Your task to perform on an android device: turn on wifi Image 0: 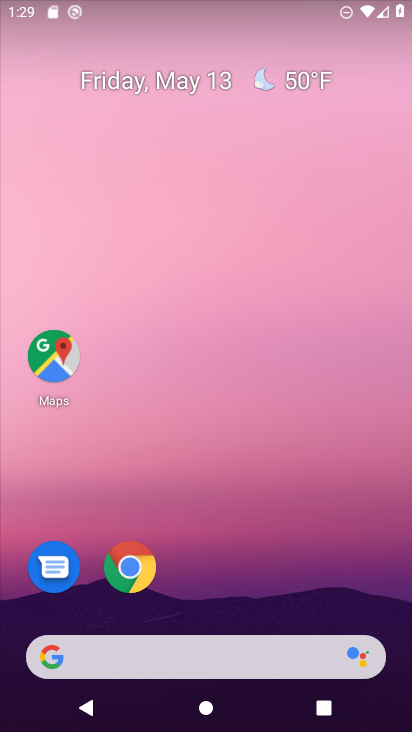
Step 0: drag from (182, 581) to (260, 185)
Your task to perform on an android device: turn on wifi Image 1: 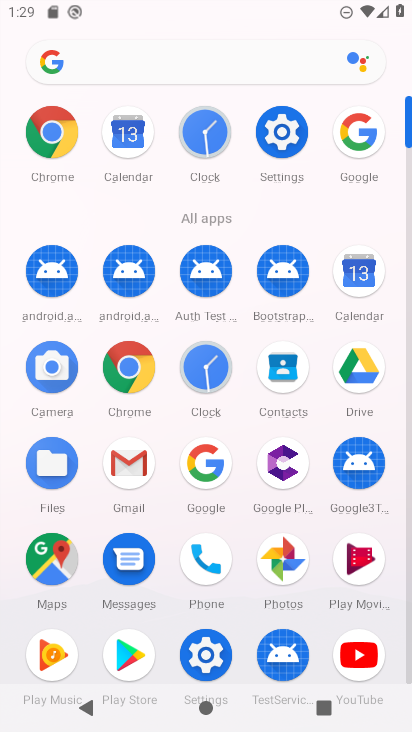
Step 1: click (281, 134)
Your task to perform on an android device: turn on wifi Image 2: 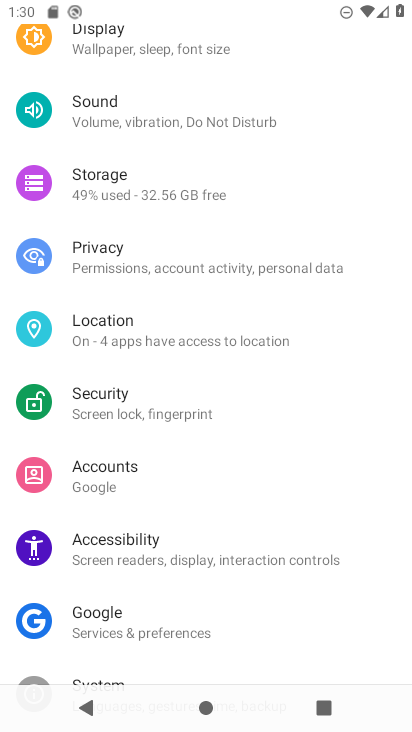
Step 2: drag from (128, 49) to (125, 452)
Your task to perform on an android device: turn on wifi Image 3: 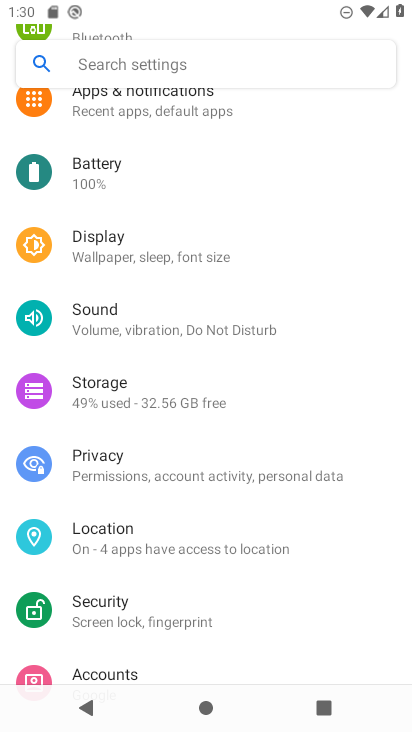
Step 3: drag from (222, 33) to (219, 444)
Your task to perform on an android device: turn on wifi Image 4: 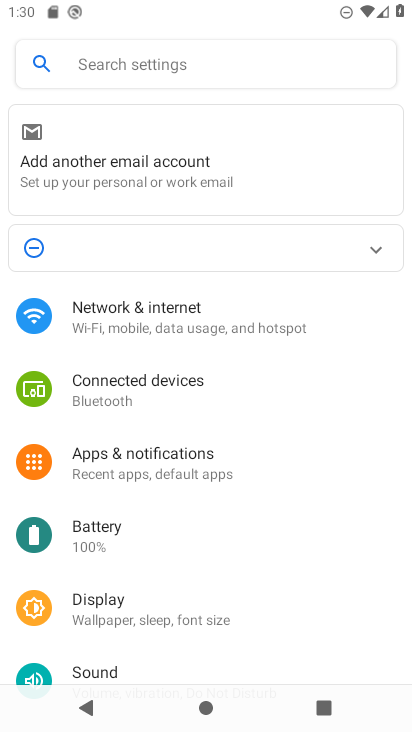
Step 4: click (160, 303)
Your task to perform on an android device: turn on wifi Image 5: 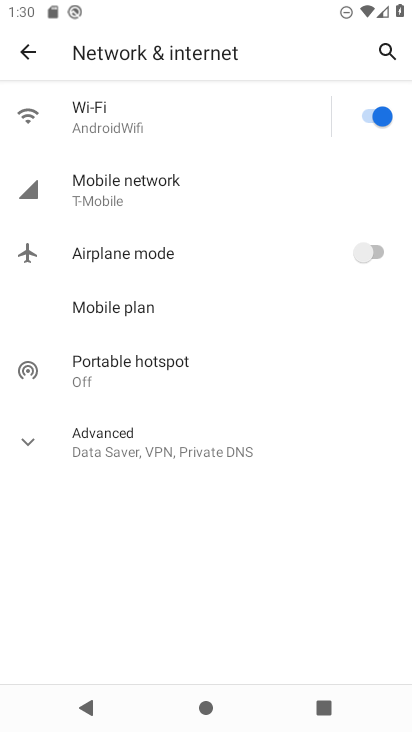
Step 5: task complete